Your task to perform on an android device: see sites visited before in the chrome app Image 0: 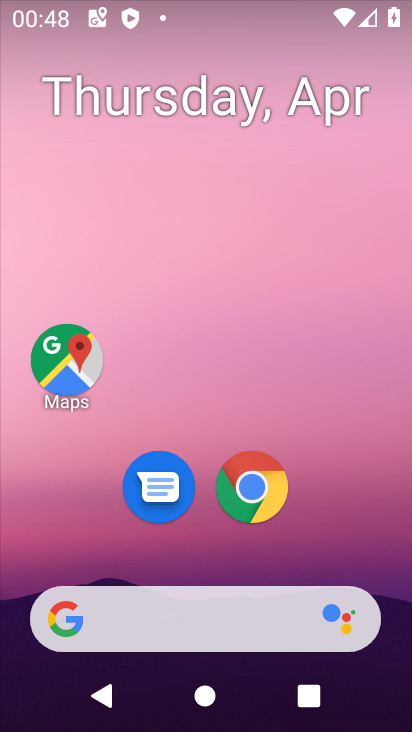
Step 0: click (237, 502)
Your task to perform on an android device: see sites visited before in the chrome app Image 1: 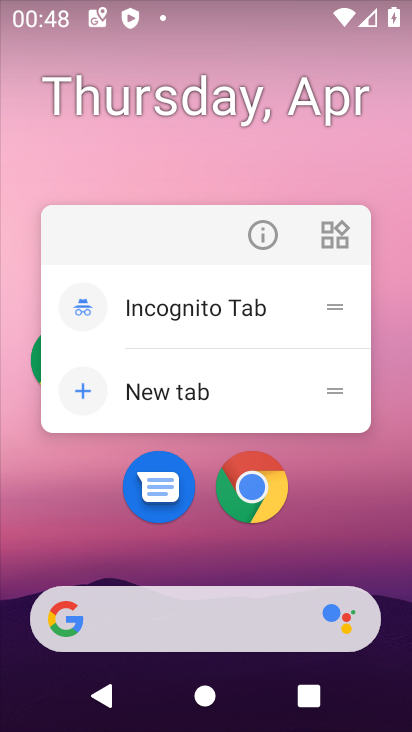
Step 1: click (237, 490)
Your task to perform on an android device: see sites visited before in the chrome app Image 2: 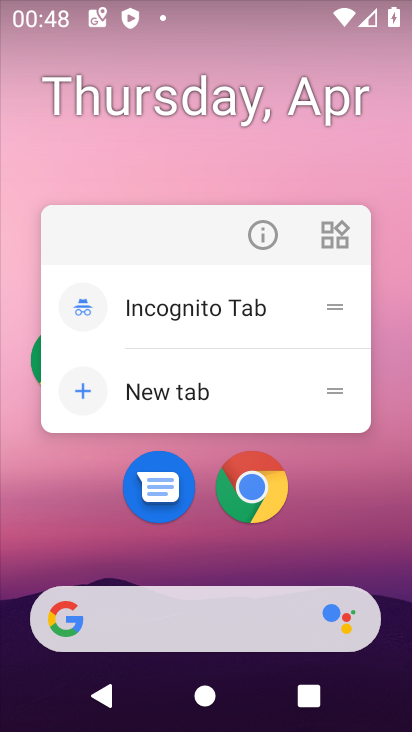
Step 2: click (261, 498)
Your task to perform on an android device: see sites visited before in the chrome app Image 3: 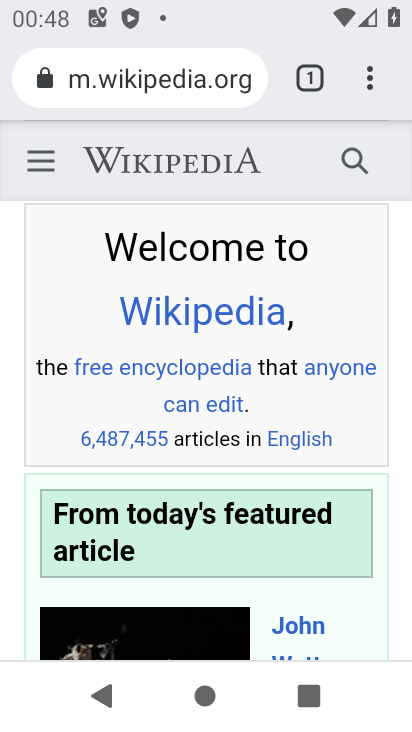
Step 3: click (369, 83)
Your task to perform on an android device: see sites visited before in the chrome app Image 4: 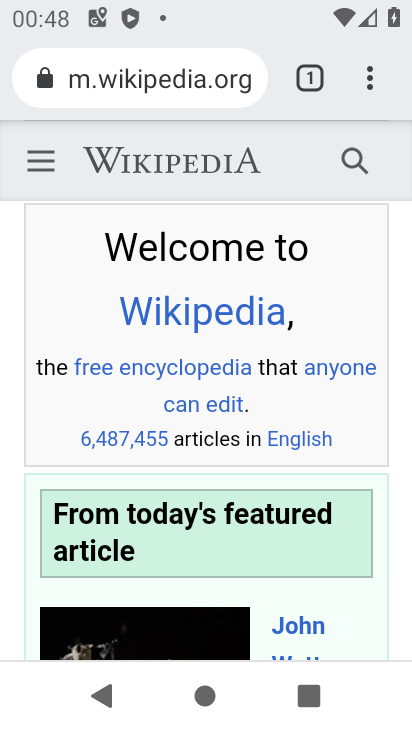
Step 4: click (369, 83)
Your task to perform on an android device: see sites visited before in the chrome app Image 5: 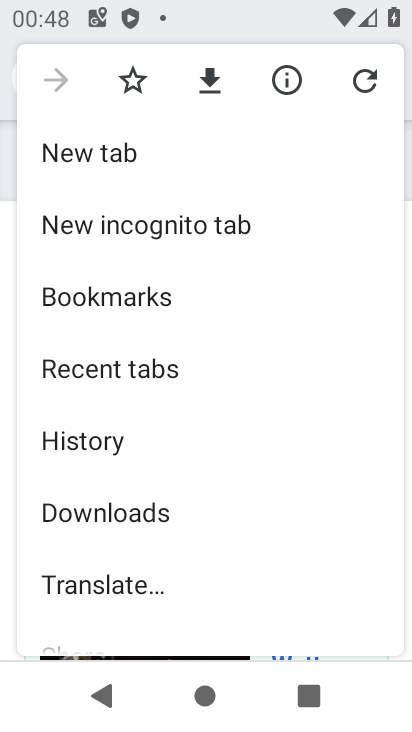
Step 5: click (103, 438)
Your task to perform on an android device: see sites visited before in the chrome app Image 6: 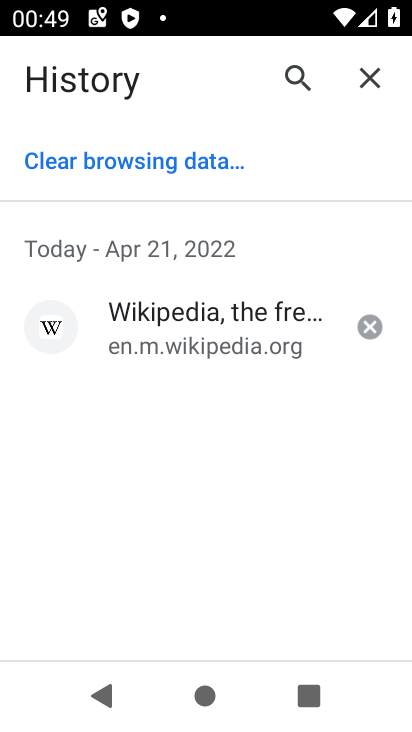
Step 6: task complete